Your task to perform on an android device: Show me recent news Image 0: 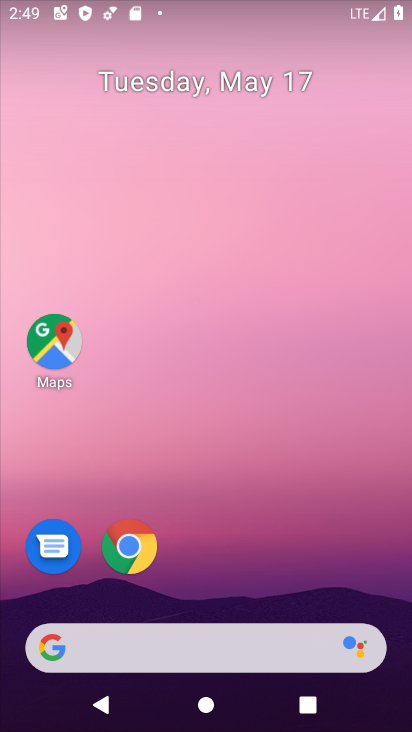
Step 0: press home button
Your task to perform on an android device: Show me recent news Image 1: 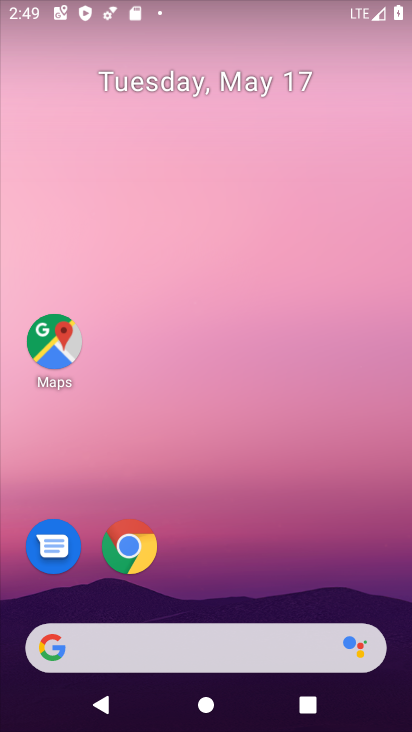
Step 1: click (124, 563)
Your task to perform on an android device: Show me recent news Image 2: 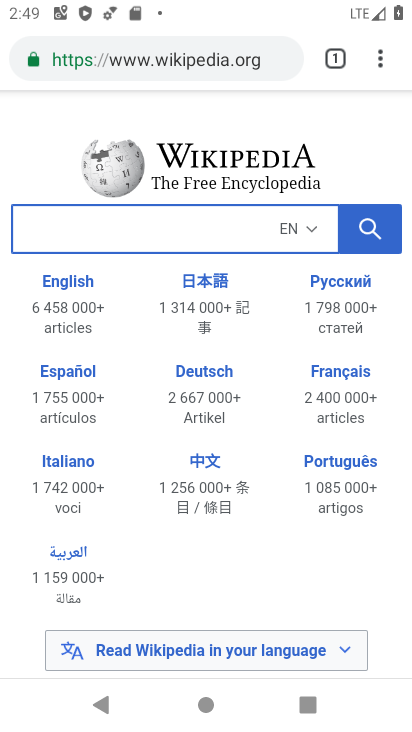
Step 2: click (204, 47)
Your task to perform on an android device: Show me recent news Image 3: 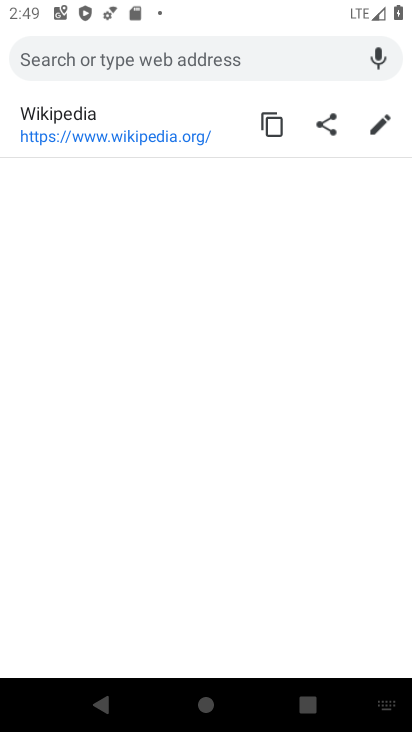
Step 3: type "Show me recent news"
Your task to perform on an android device: Show me recent news Image 4: 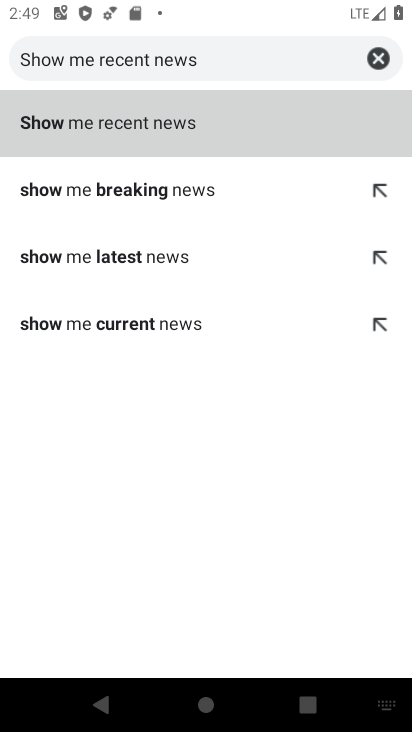
Step 4: click (69, 115)
Your task to perform on an android device: Show me recent news Image 5: 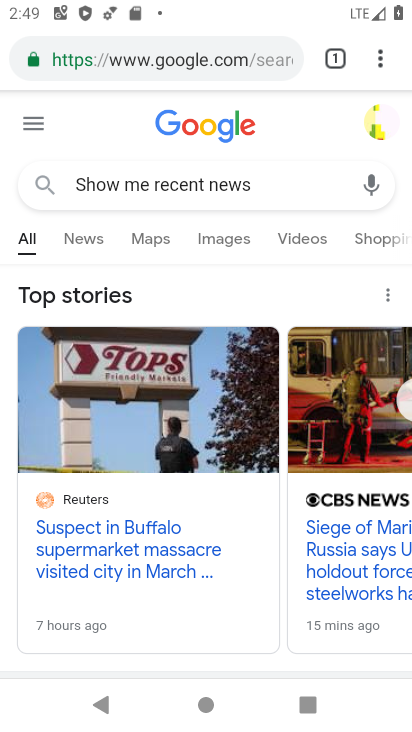
Step 5: task complete